Your task to perform on an android device: toggle priority inbox in the gmail app Image 0: 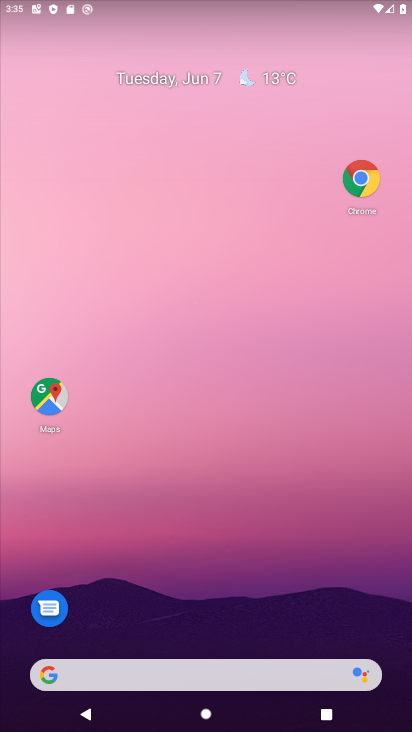
Step 0: drag from (172, 681) to (253, 198)
Your task to perform on an android device: toggle priority inbox in the gmail app Image 1: 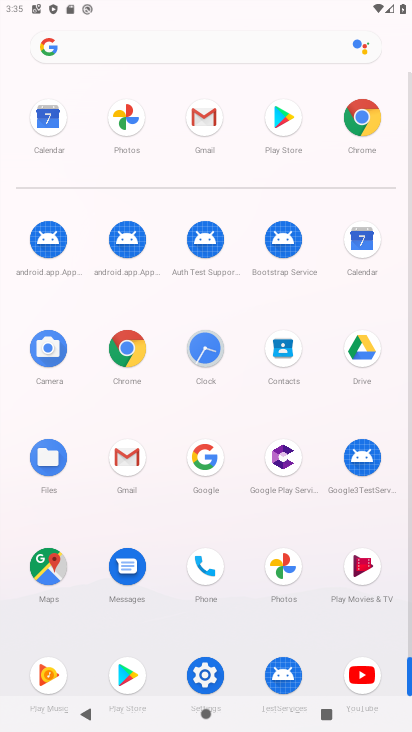
Step 1: drag from (179, 604) to (233, 413)
Your task to perform on an android device: toggle priority inbox in the gmail app Image 2: 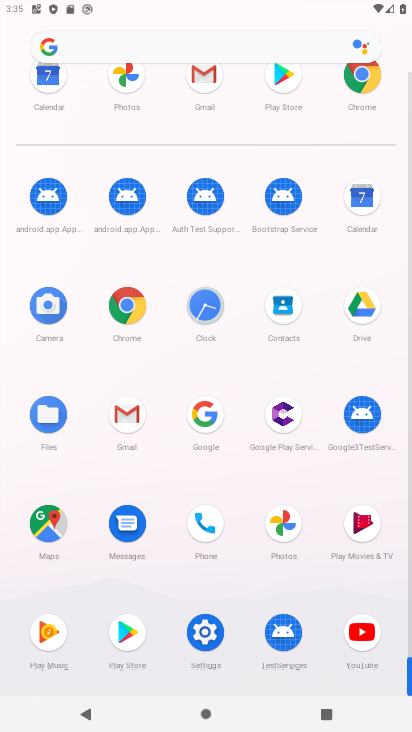
Step 2: click (136, 414)
Your task to perform on an android device: toggle priority inbox in the gmail app Image 3: 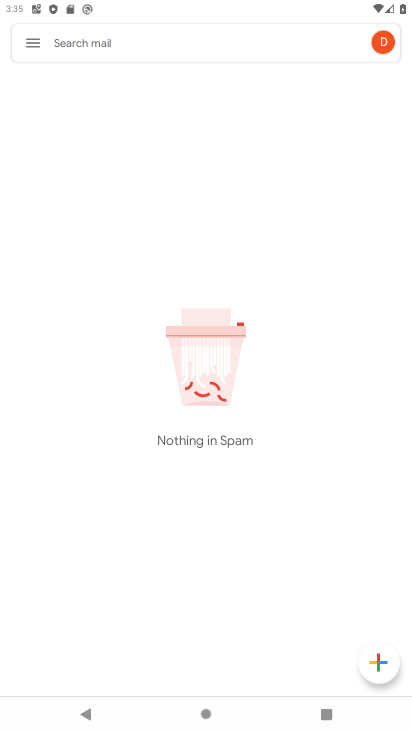
Step 3: click (34, 39)
Your task to perform on an android device: toggle priority inbox in the gmail app Image 4: 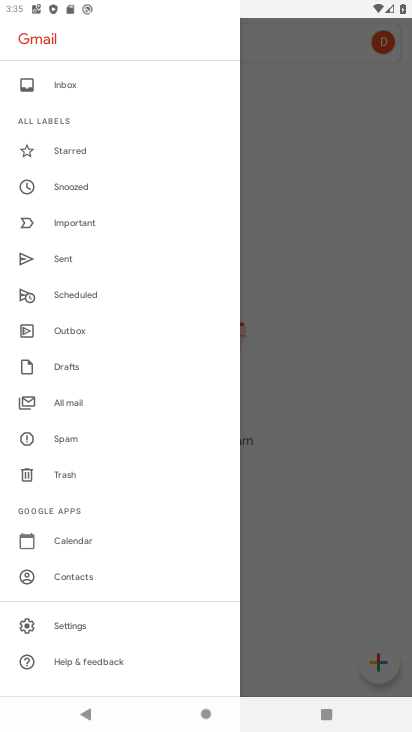
Step 4: drag from (153, 441) to (183, 333)
Your task to perform on an android device: toggle priority inbox in the gmail app Image 5: 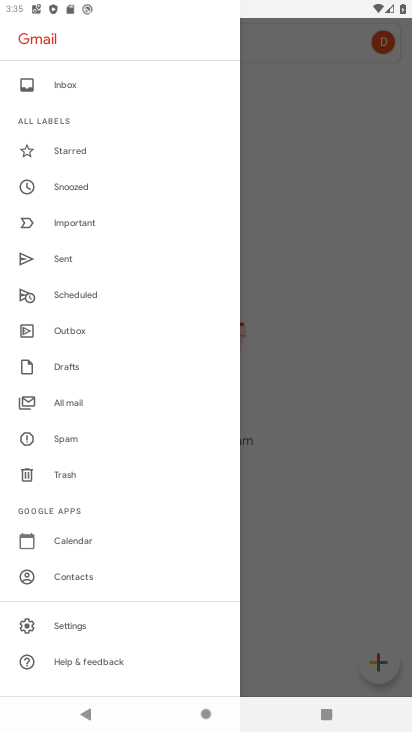
Step 5: click (74, 635)
Your task to perform on an android device: toggle priority inbox in the gmail app Image 6: 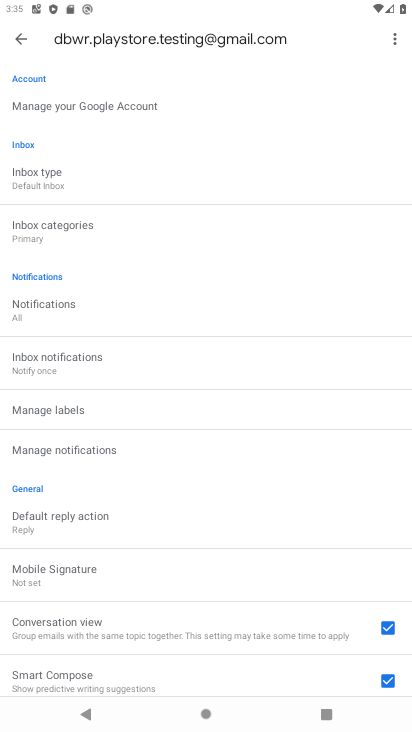
Step 6: click (115, 177)
Your task to perform on an android device: toggle priority inbox in the gmail app Image 7: 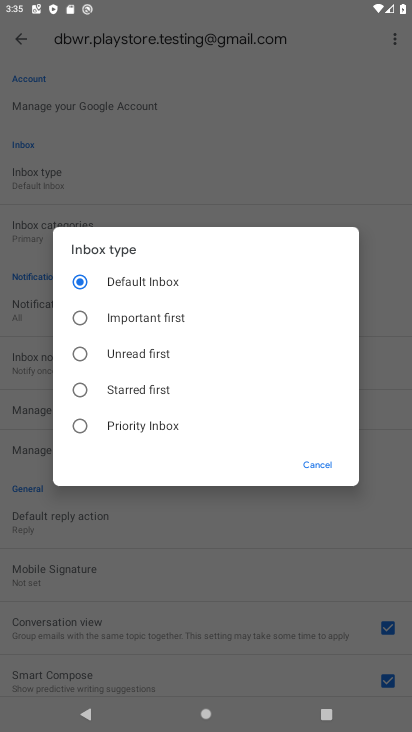
Step 7: click (172, 437)
Your task to perform on an android device: toggle priority inbox in the gmail app Image 8: 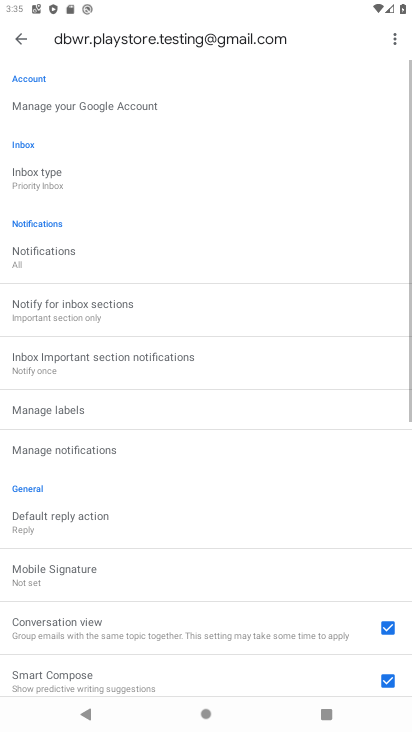
Step 8: task complete